Your task to perform on an android device: Open notification settings Image 0: 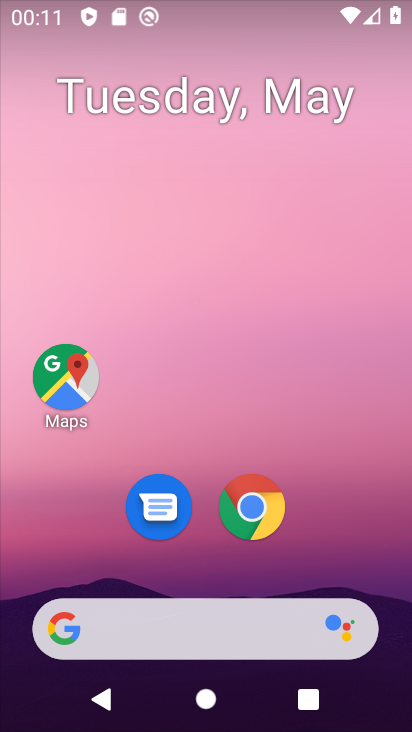
Step 0: drag from (184, 596) to (186, 243)
Your task to perform on an android device: Open notification settings Image 1: 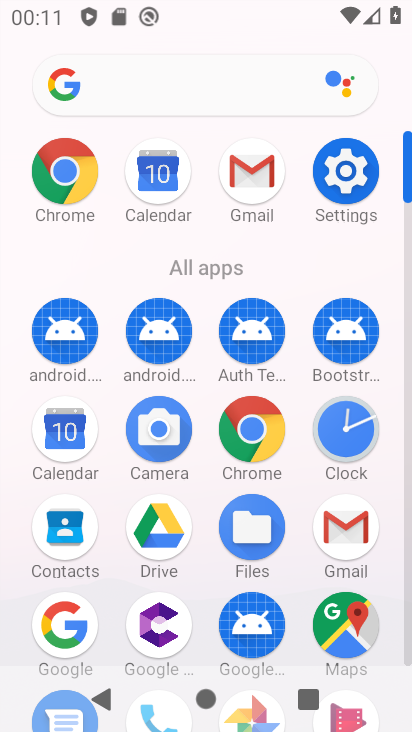
Step 1: click (334, 177)
Your task to perform on an android device: Open notification settings Image 2: 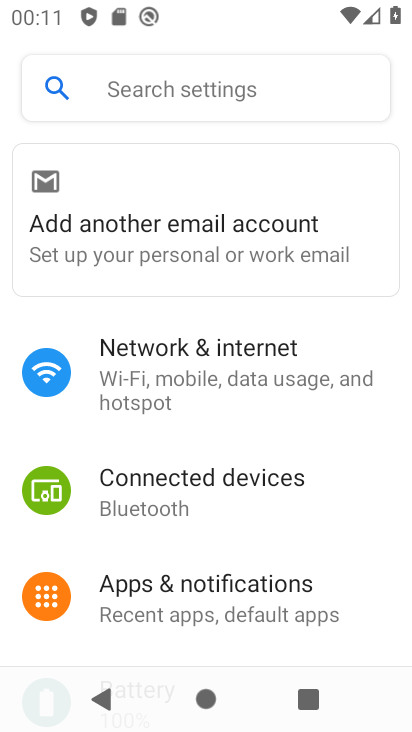
Step 2: click (191, 599)
Your task to perform on an android device: Open notification settings Image 3: 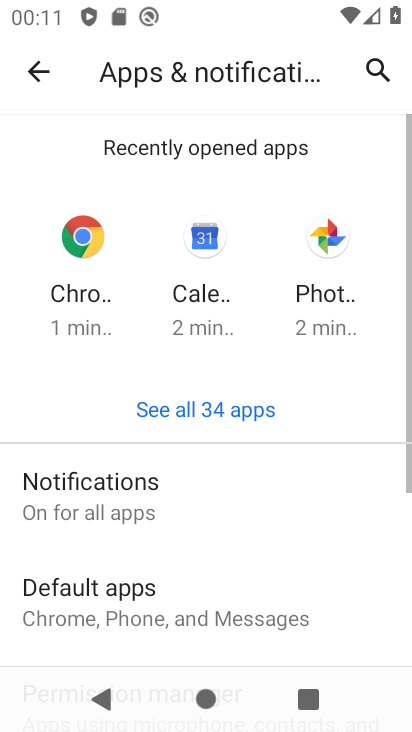
Step 3: drag from (183, 608) to (206, 260)
Your task to perform on an android device: Open notification settings Image 4: 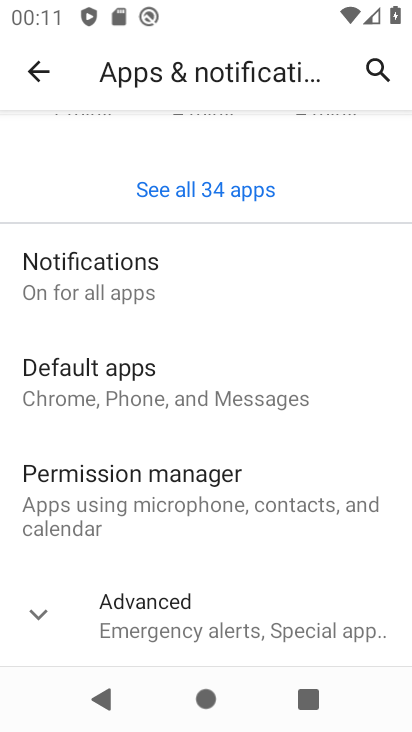
Step 4: click (174, 626)
Your task to perform on an android device: Open notification settings Image 5: 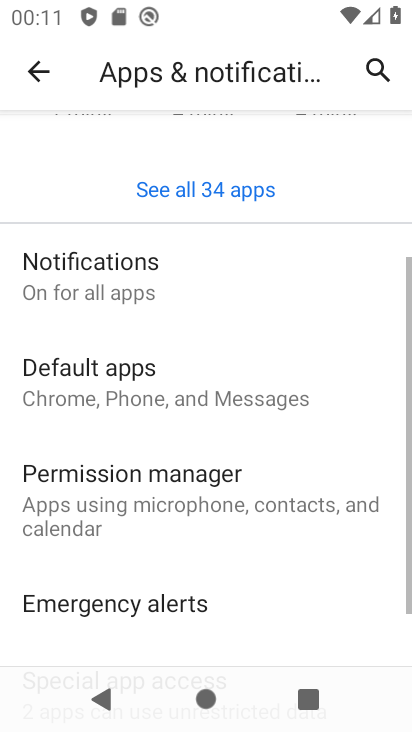
Step 5: drag from (178, 586) to (182, 300)
Your task to perform on an android device: Open notification settings Image 6: 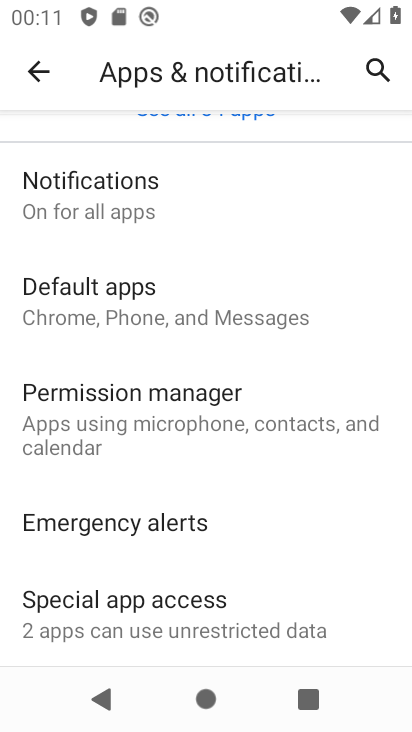
Step 6: click (135, 181)
Your task to perform on an android device: Open notification settings Image 7: 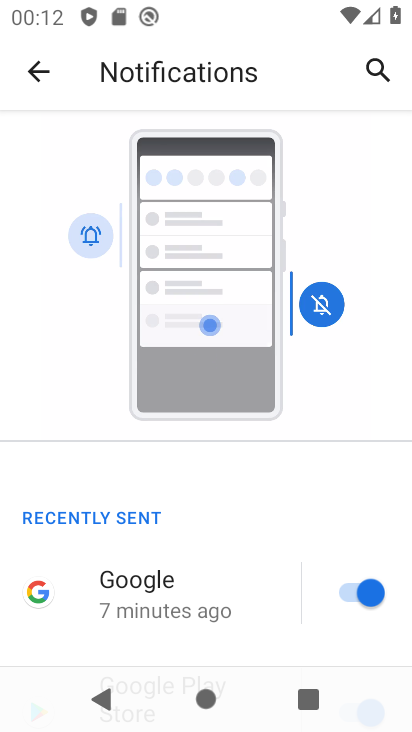
Step 7: task complete